Your task to perform on an android device: turn on showing notifications on the lock screen Image 0: 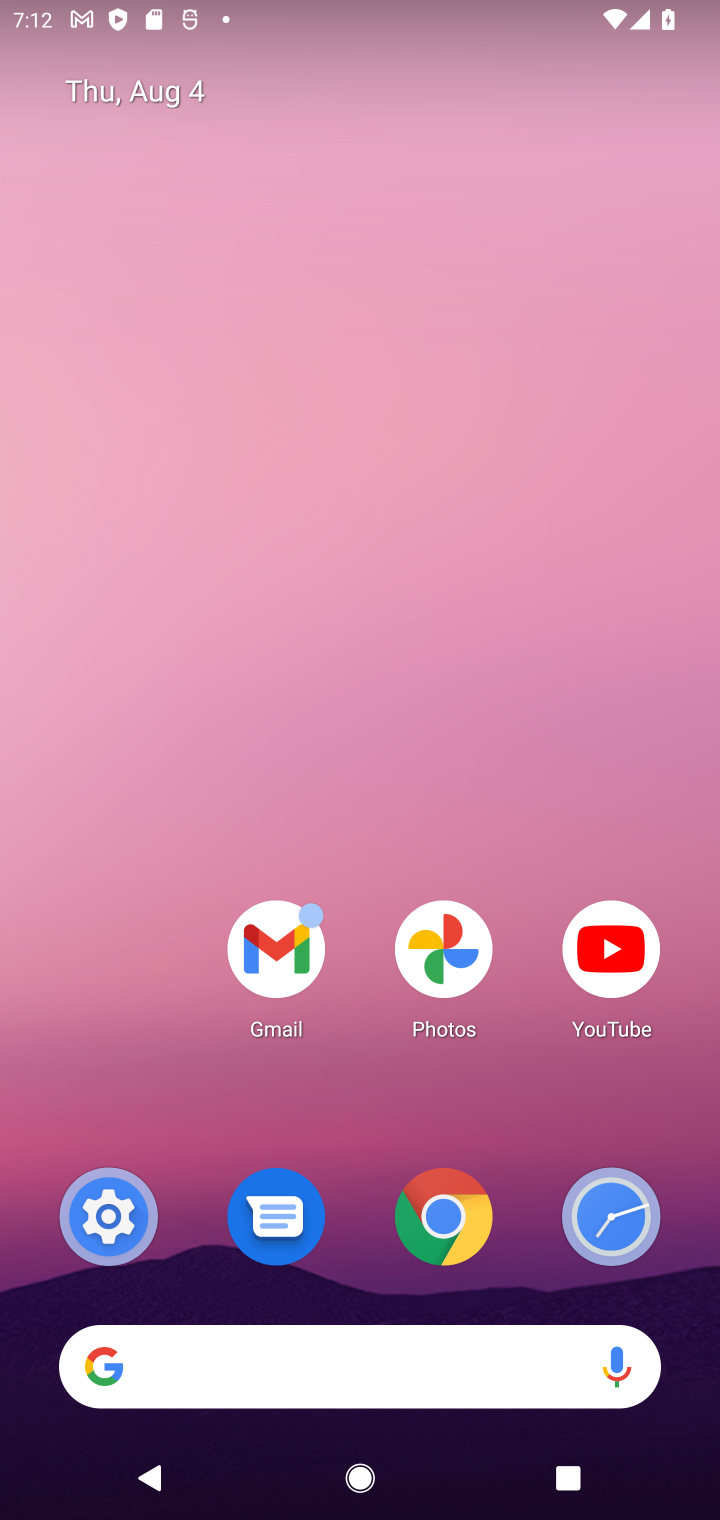
Step 0: drag from (355, 1164) to (317, 296)
Your task to perform on an android device: turn on showing notifications on the lock screen Image 1: 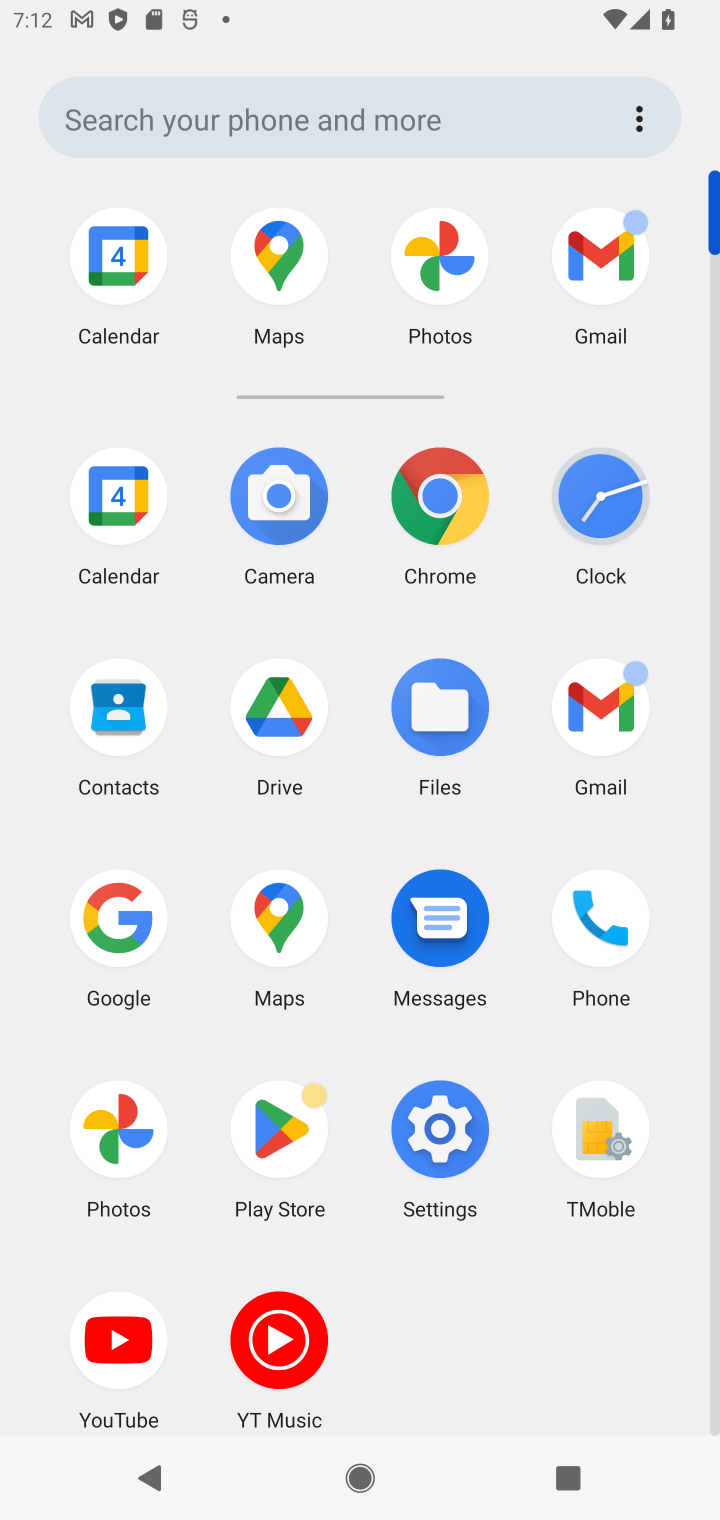
Step 1: click (430, 1118)
Your task to perform on an android device: turn on showing notifications on the lock screen Image 2: 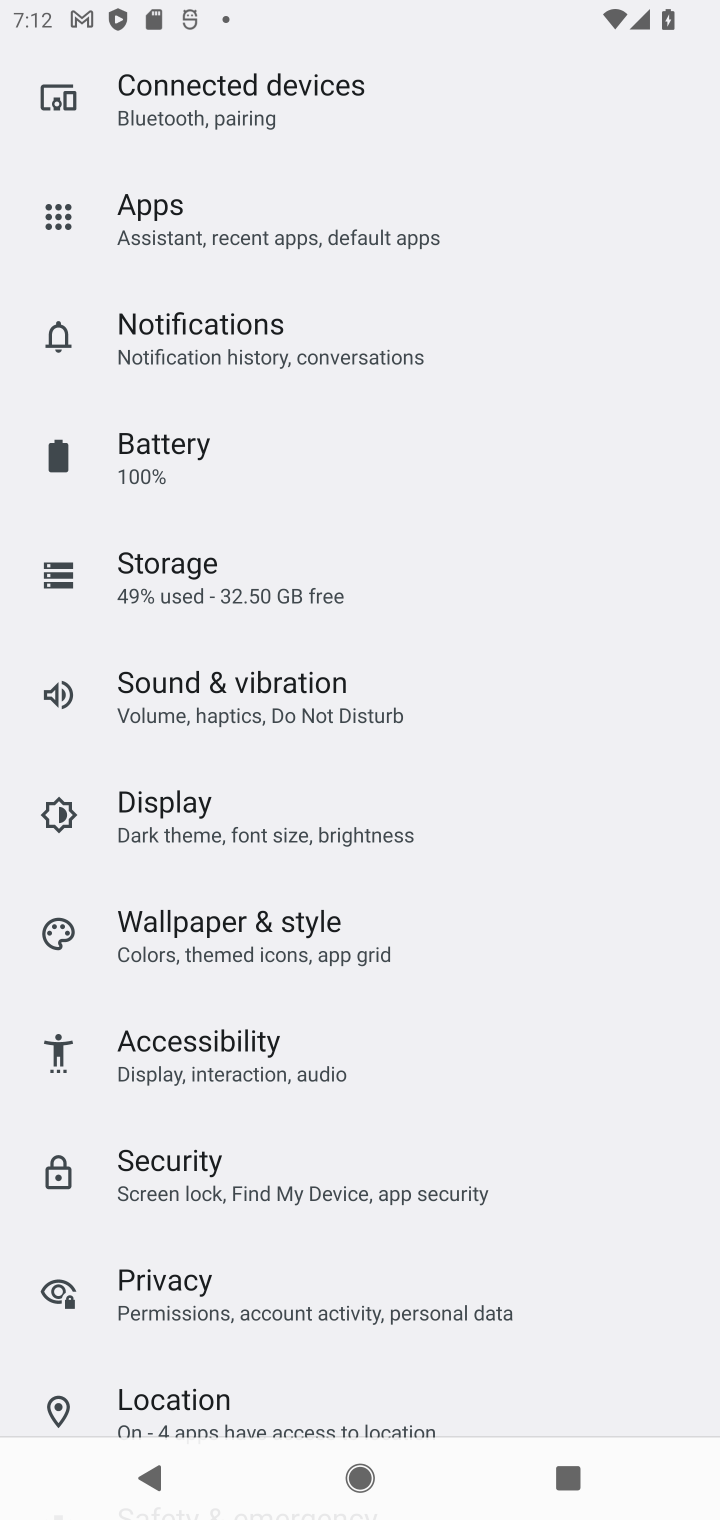
Step 2: click (173, 324)
Your task to perform on an android device: turn on showing notifications on the lock screen Image 3: 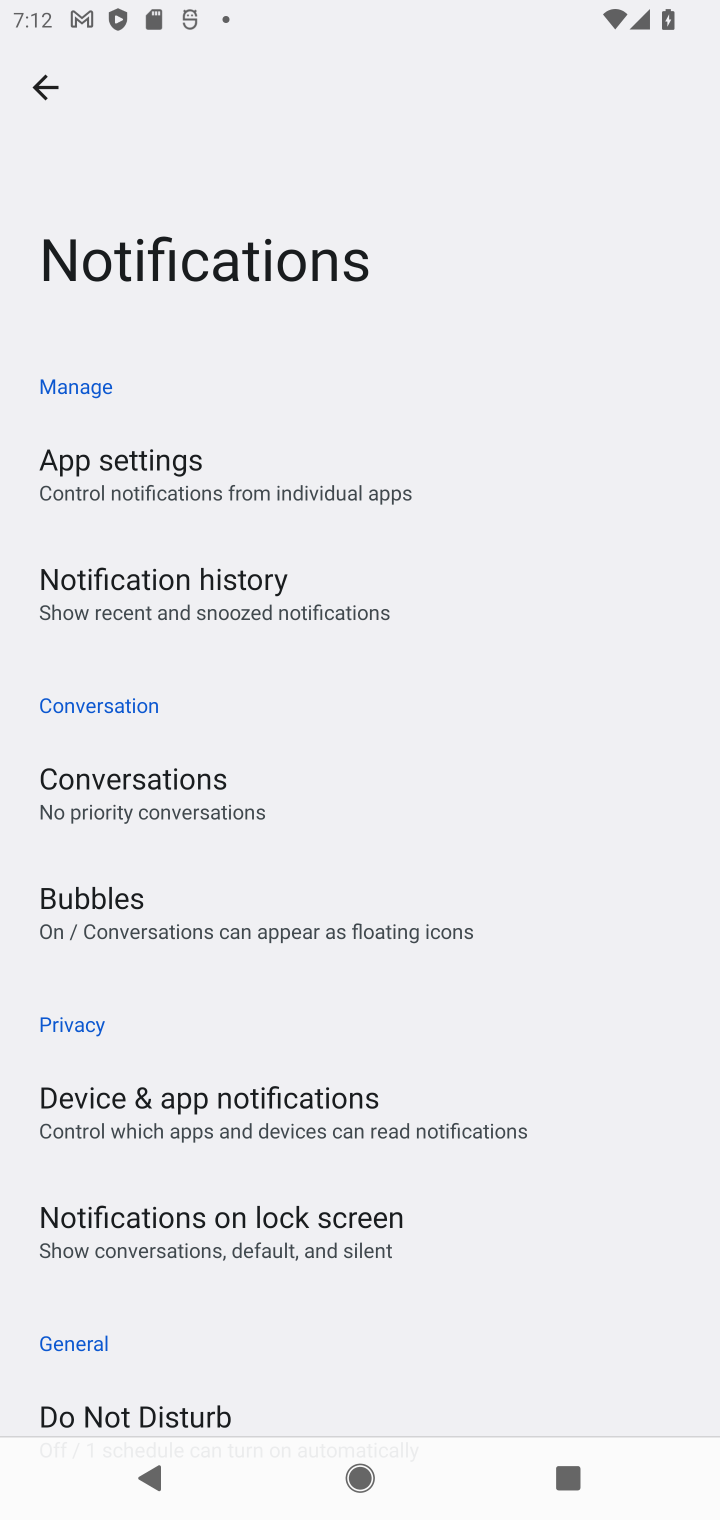
Step 3: click (229, 1214)
Your task to perform on an android device: turn on showing notifications on the lock screen Image 4: 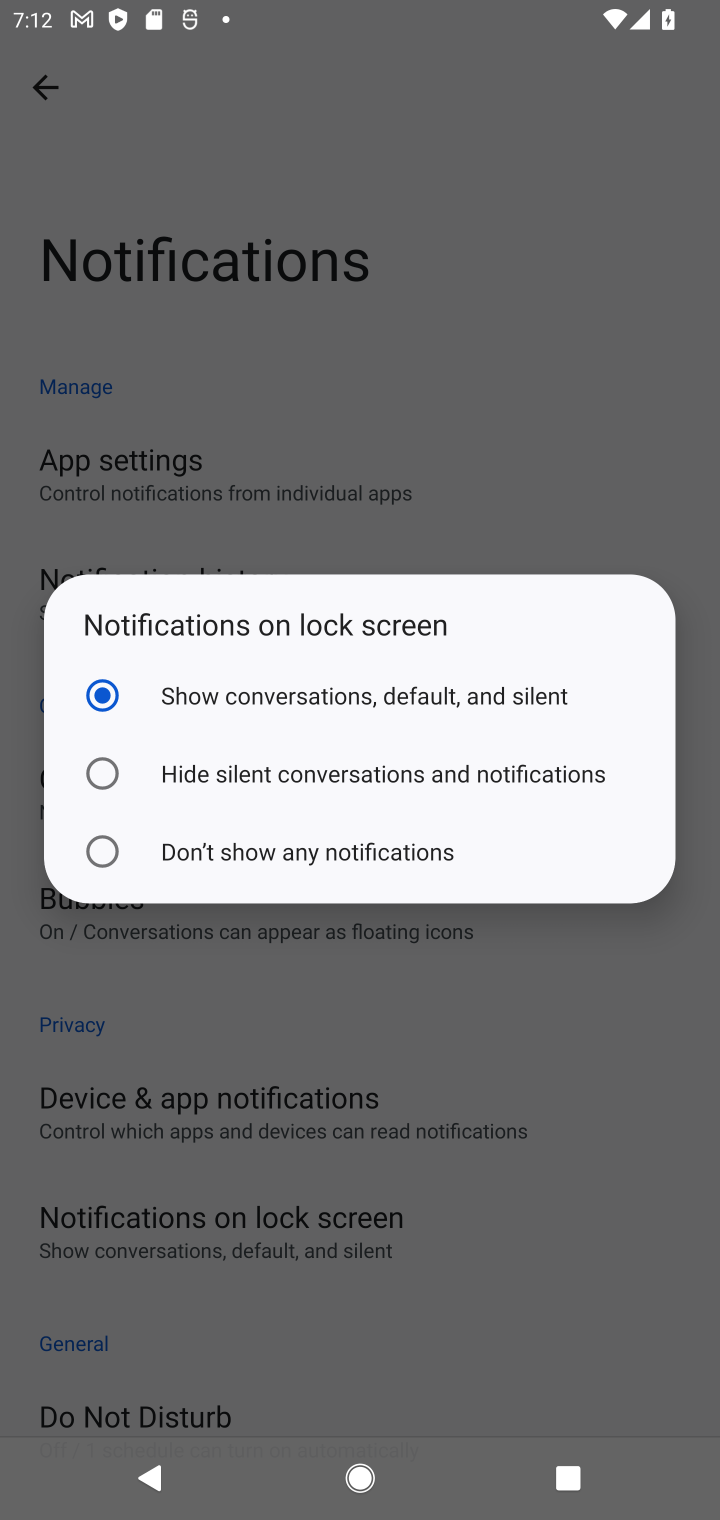
Step 4: task complete